Your task to perform on an android device: Go to settings Image 0: 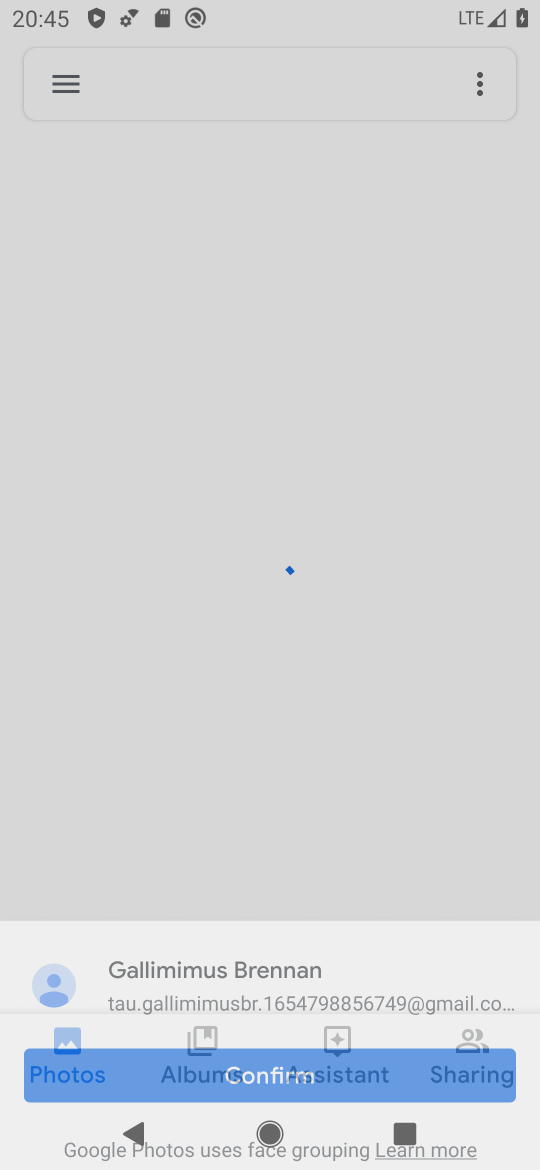
Step 0: press home button
Your task to perform on an android device: Go to settings Image 1: 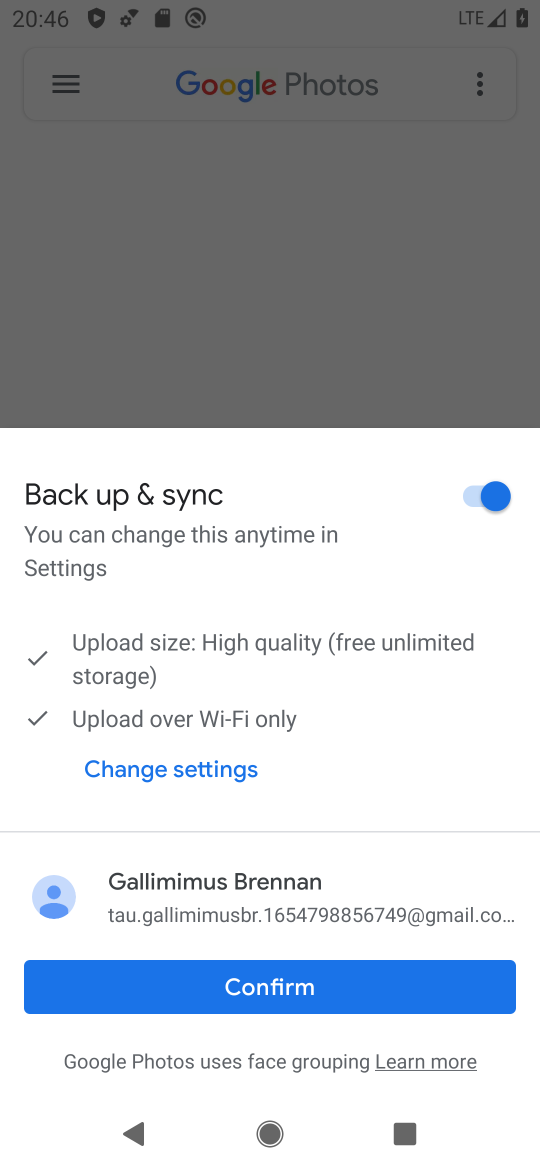
Step 1: press home button
Your task to perform on an android device: Go to settings Image 2: 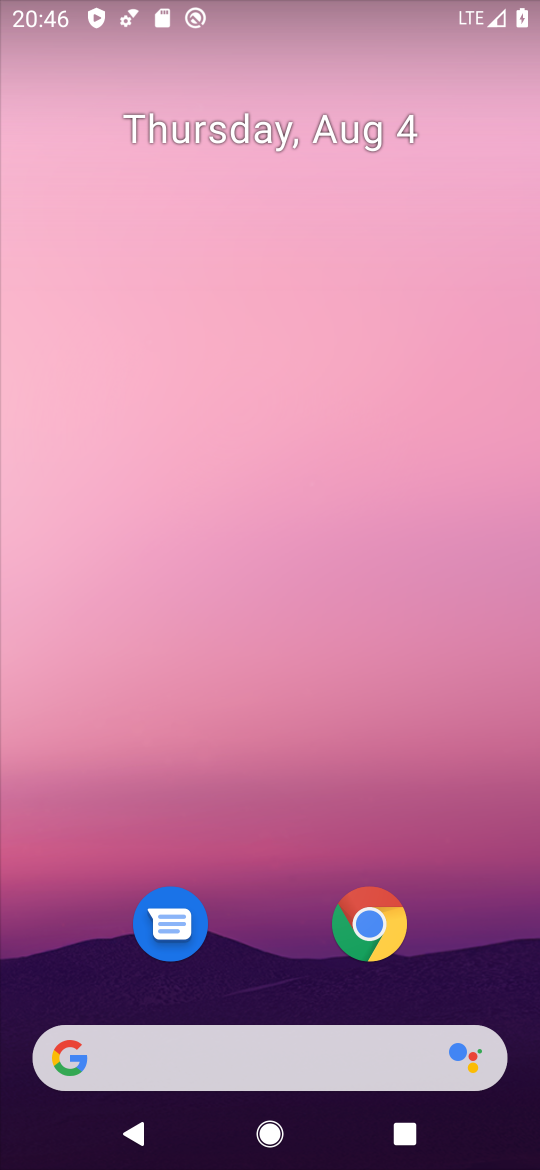
Step 2: drag from (255, 993) to (536, 187)
Your task to perform on an android device: Go to settings Image 3: 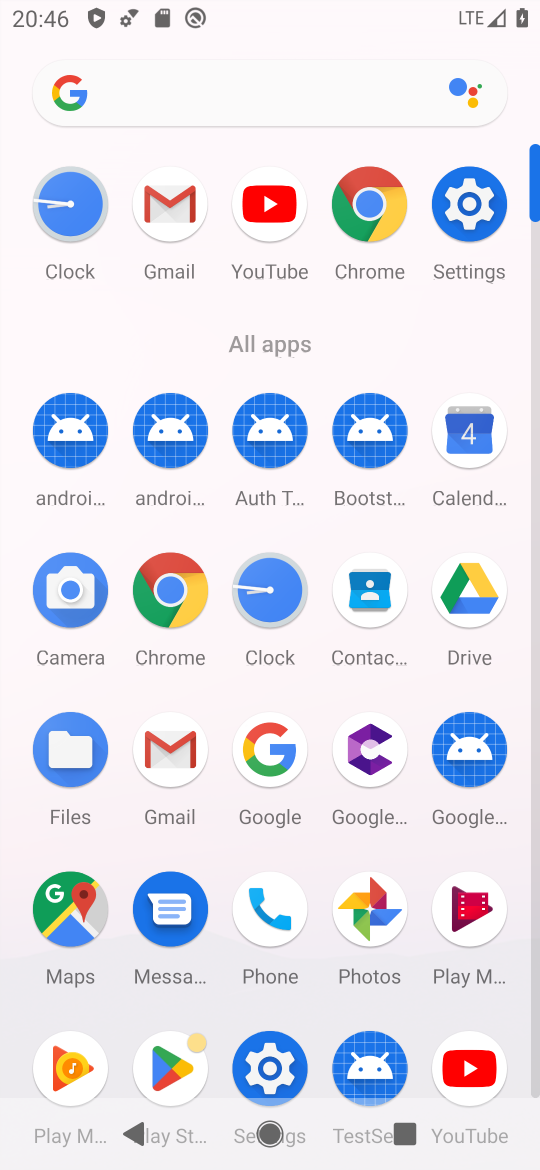
Step 3: click (481, 192)
Your task to perform on an android device: Go to settings Image 4: 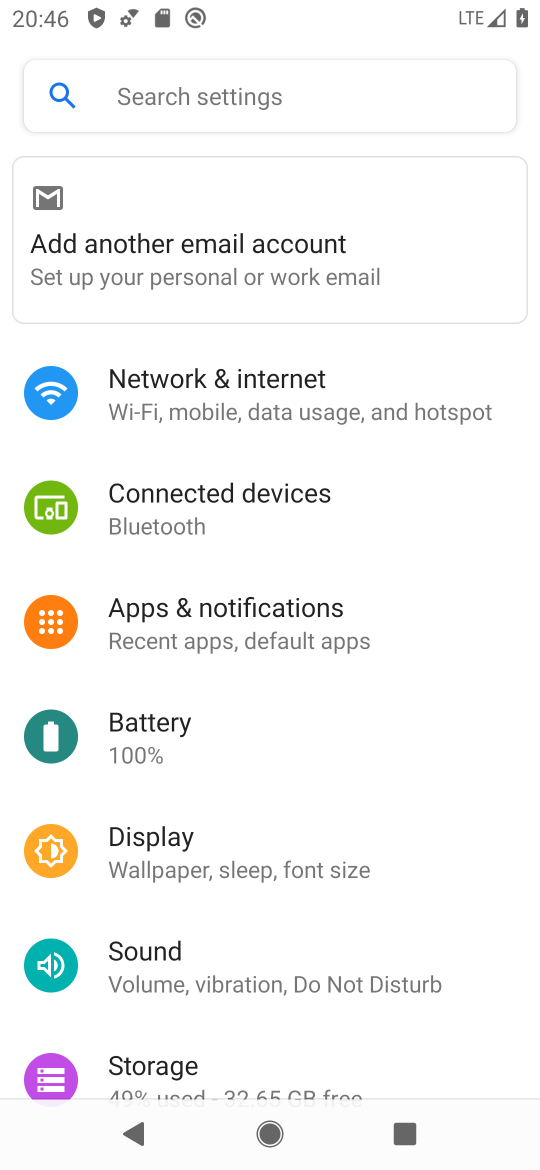
Step 4: task complete